Your task to perform on an android device: turn off location history Image 0: 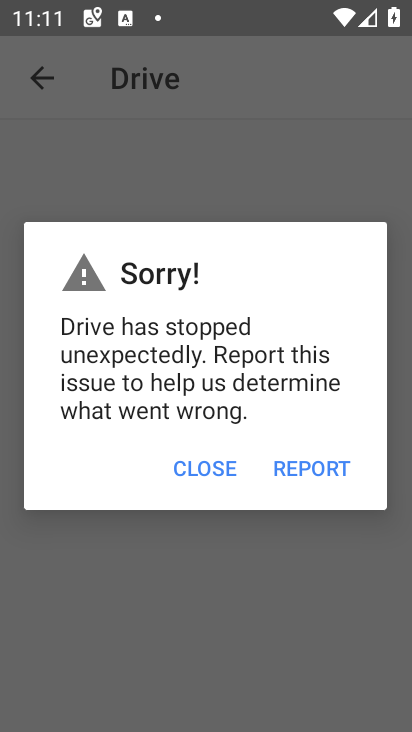
Step 0: press home button
Your task to perform on an android device: turn off location history Image 1: 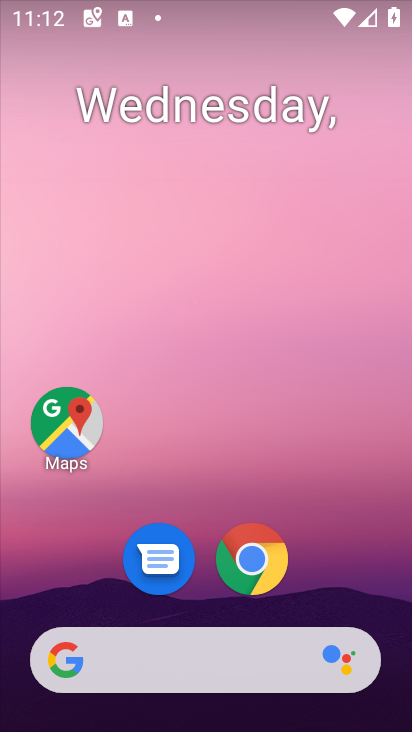
Step 1: drag from (224, 630) to (254, 259)
Your task to perform on an android device: turn off location history Image 2: 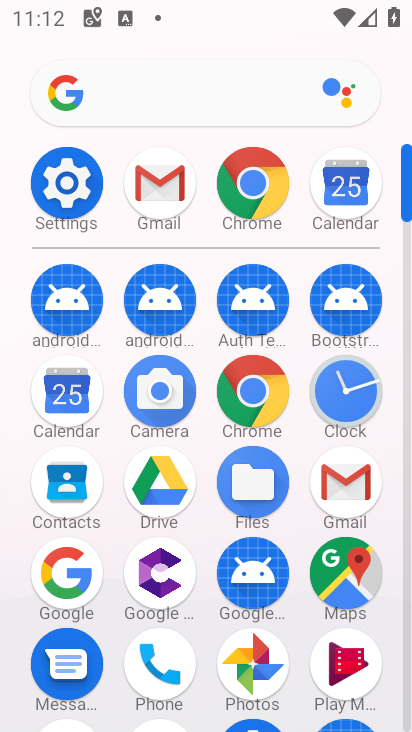
Step 2: click (63, 198)
Your task to perform on an android device: turn off location history Image 3: 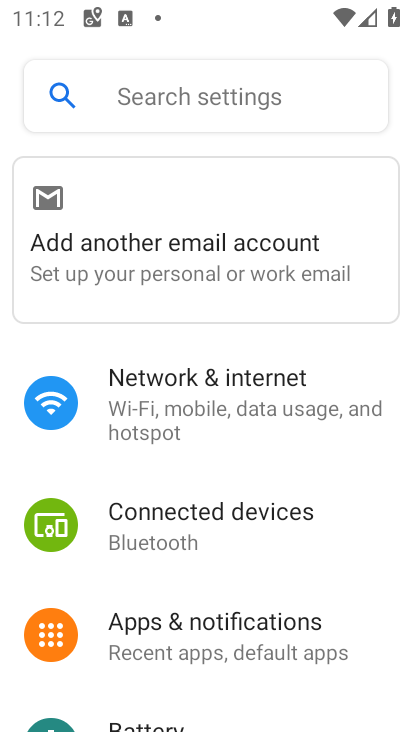
Step 3: drag from (218, 564) to (243, 284)
Your task to perform on an android device: turn off location history Image 4: 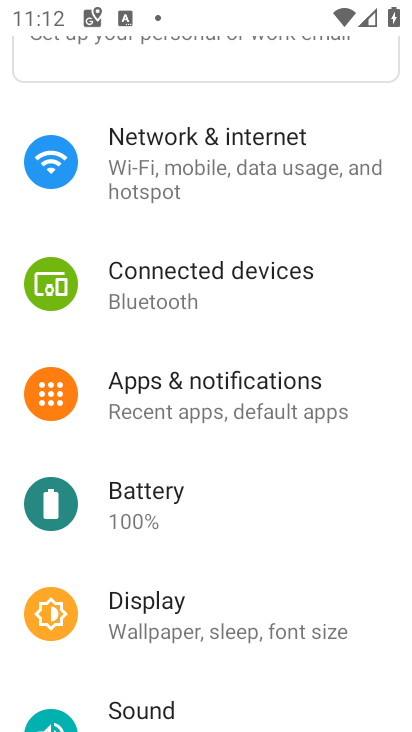
Step 4: drag from (205, 597) to (284, 202)
Your task to perform on an android device: turn off location history Image 5: 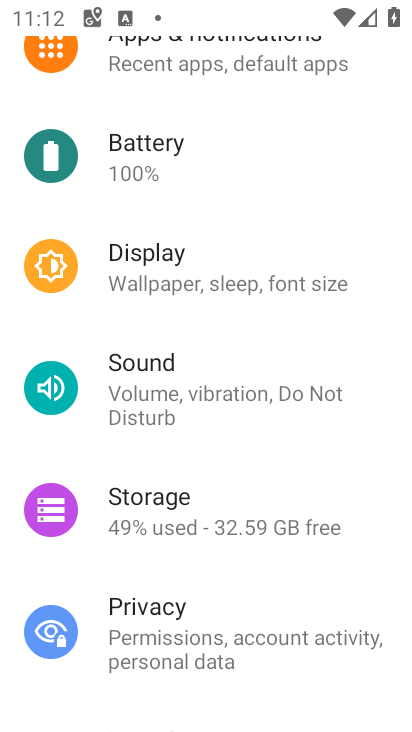
Step 5: drag from (215, 553) to (272, 288)
Your task to perform on an android device: turn off location history Image 6: 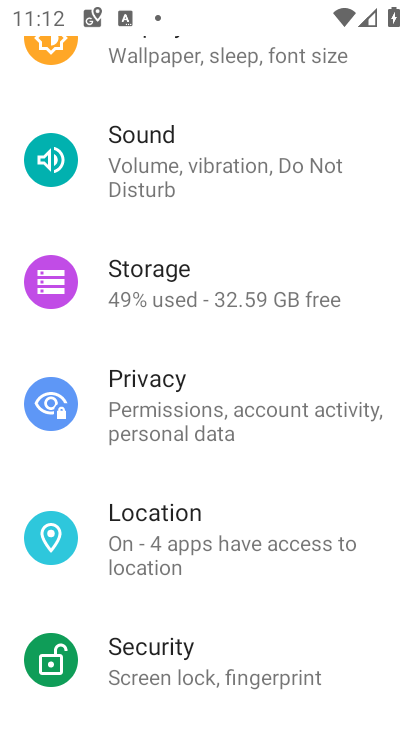
Step 6: click (237, 554)
Your task to perform on an android device: turn off location history Image 7: 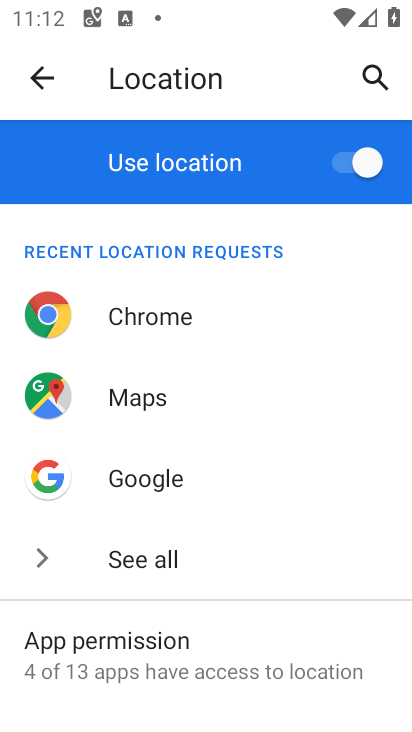
Step 7: drag from (226, 547) to (257, 281)
Your task to perform on an android device: turn off location history Image 8: 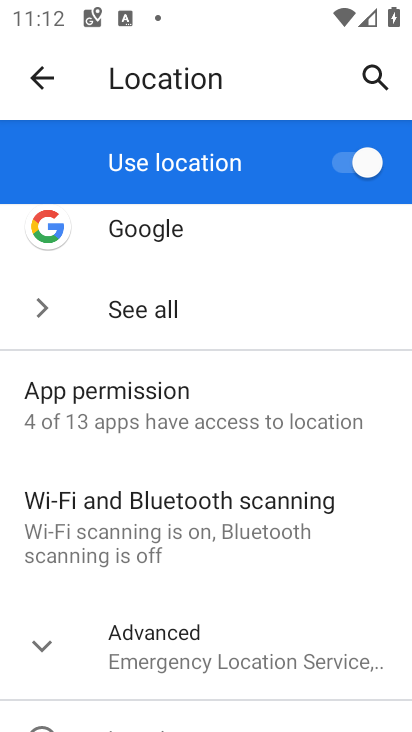
Step 8: click (169, 646)
Your task to perform on an android device: turn off location history Image 9: 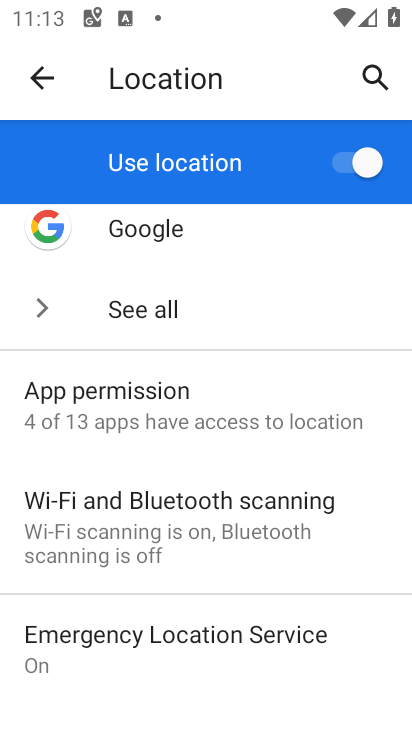
Step 9: drag from (224, 625) to (212, 271)
Your task to perform on an android device: turn off location history Image 10: 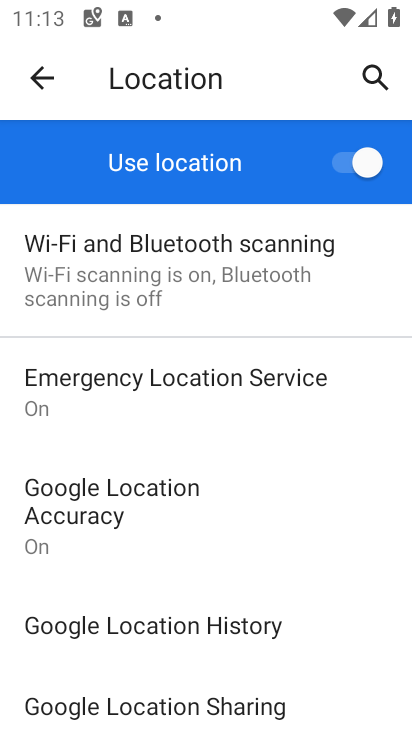
Step 10: click (81, 652)
Your task to perform on an android device: turn off location history Image 11: 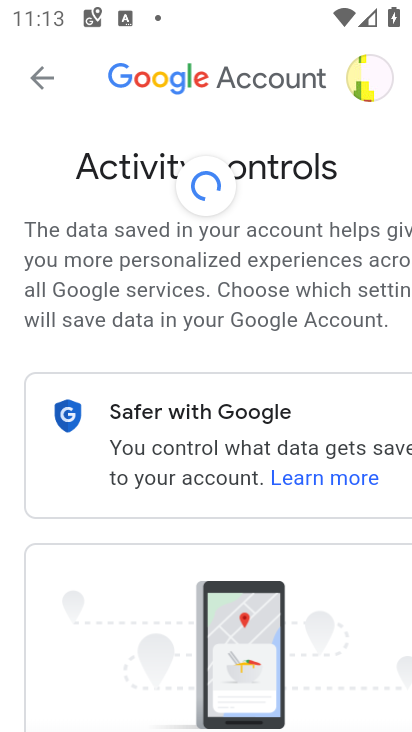
Step 11: drag from (196, 542) to (76, 321)
Your task to perform on an android device: turn off location history Image 12: 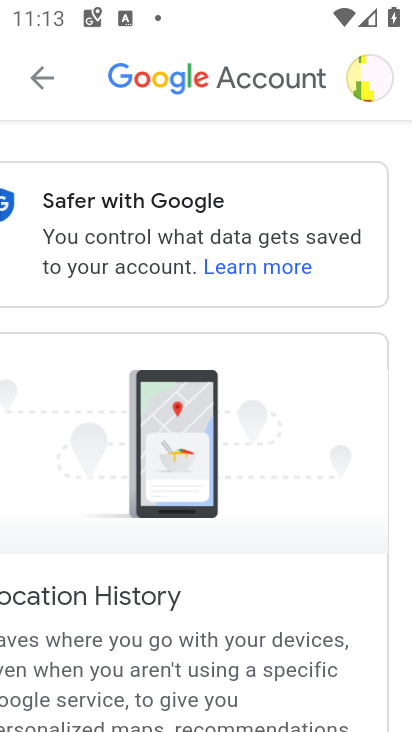
Step 12: drag from (258, 589) to (122, 428)
Your task to perform on an android device: turn off location history Image 13: 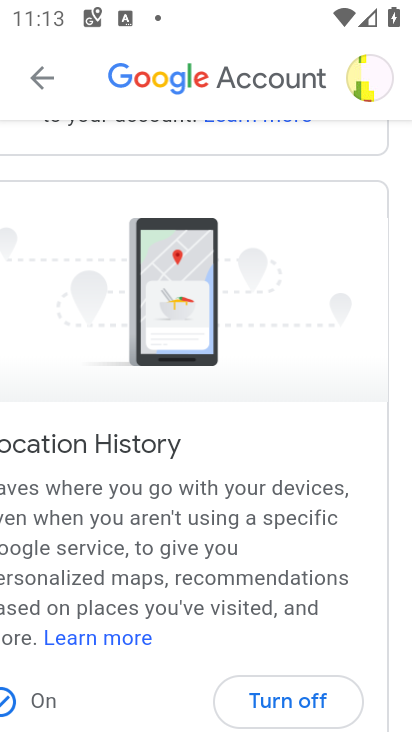
Step 13: click (315, 703)
Your task to perform on an android device: turn off location history Image 14: 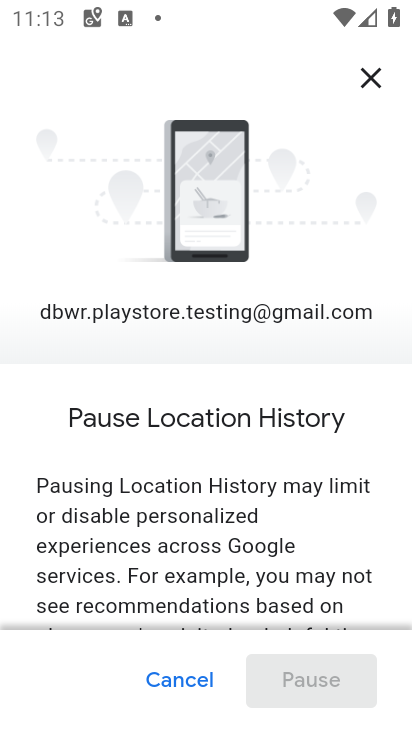
Step 14: drag from (284, 498) to (273, 217)
Your task to perform on an android device: turn off location history Image 15: 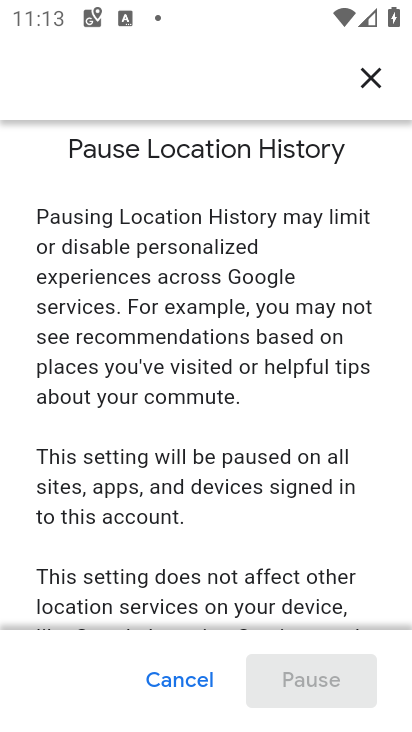
Step 15: drag from (238, 496) to (241, 219)
Your task to perform on an android device: turn off location history Image 16: 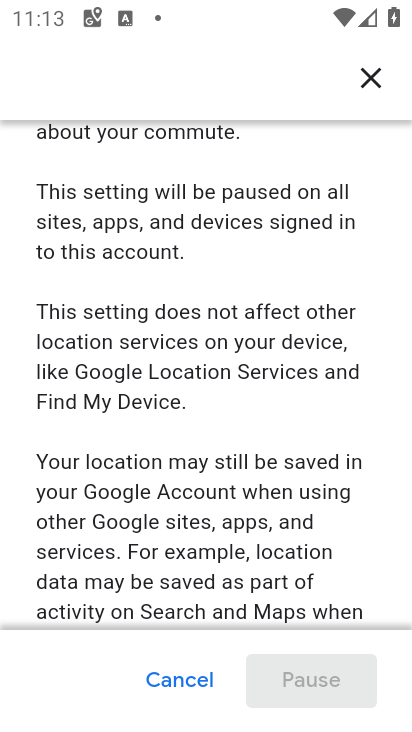
Step 16: drag from (215, 527) to (208, 274)
Your task to perform on an android device: turn off location history Image 17: 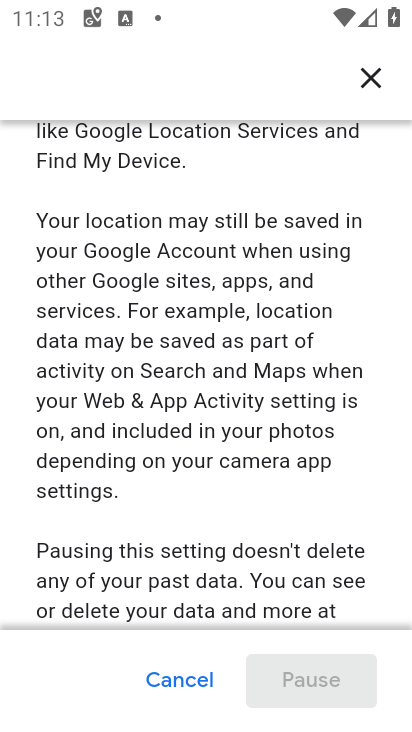
Step 17: drag from (225, 567) to (227, 299)
Your task to perform on an android device: turn off location history Image 18: 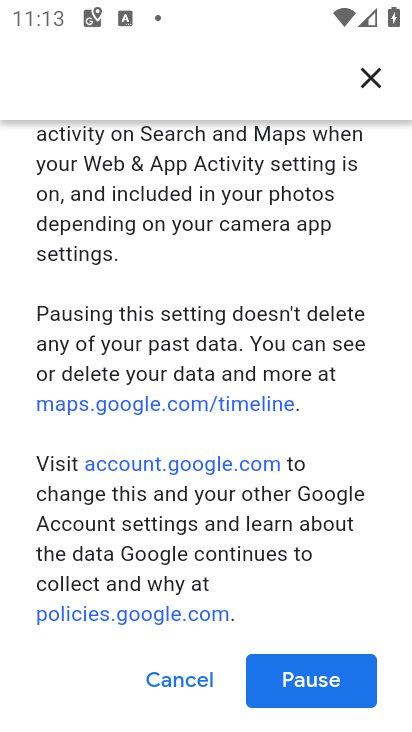
Step 18: click (334, 687)
Your task to perform on an android device: turn off location history Image 19: 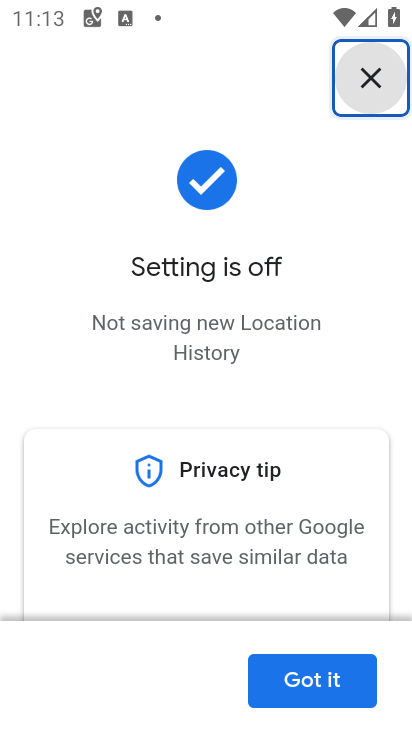
Step 19: click (335, 689)
Your task to perform on an android device: turn off location history Image 20: 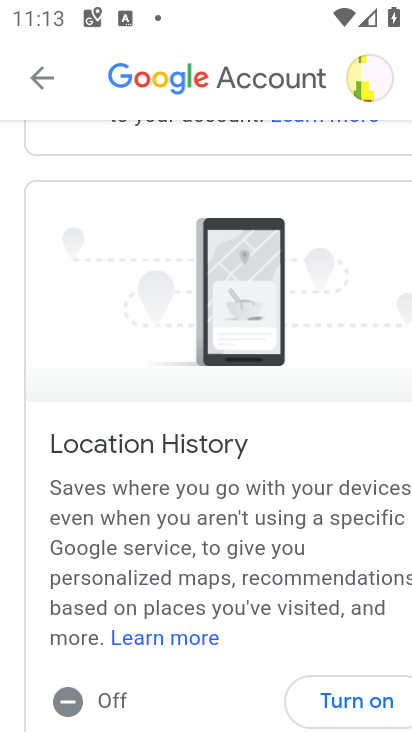
Step 20: task complete